Your task to perform on an android device: uninstall "WhatsApp Messenger" Image 0: 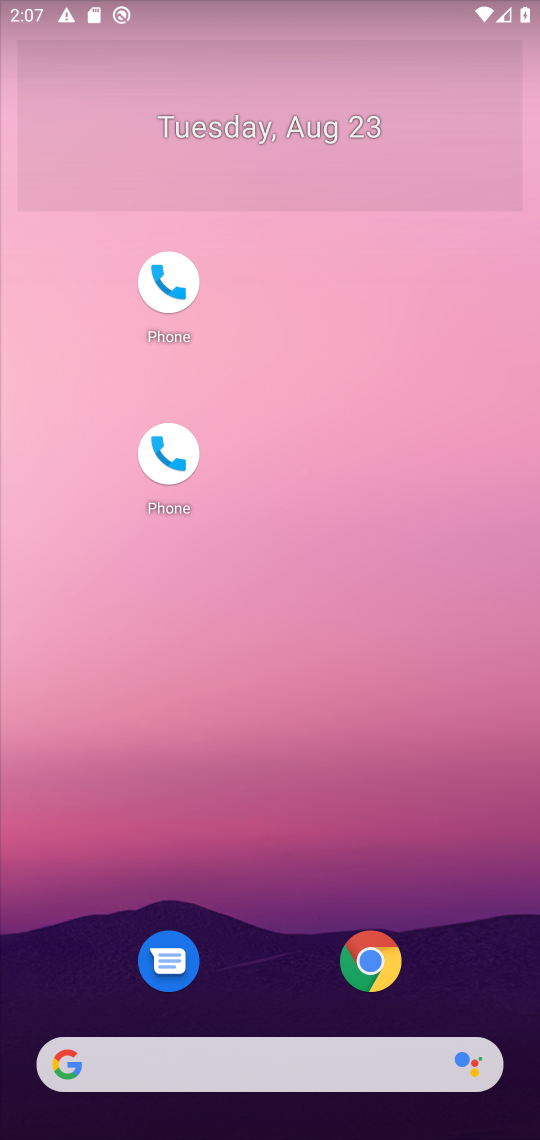
Step 0: drag from (275, 436) to (307, 56)
Your task to perform on an android device: uninstall "WhatsApp Messenger" Image 1: 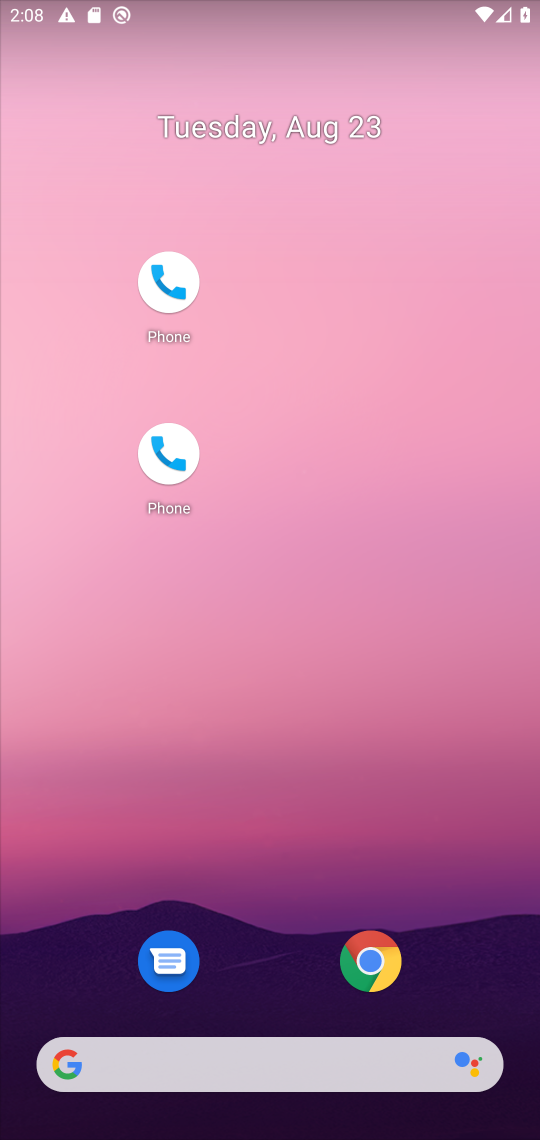
Step 1: drag from (261, 1005) to (302, 31)
Your task to perform on an android device: uninstall "WhatsApp Messenger" Image 2: 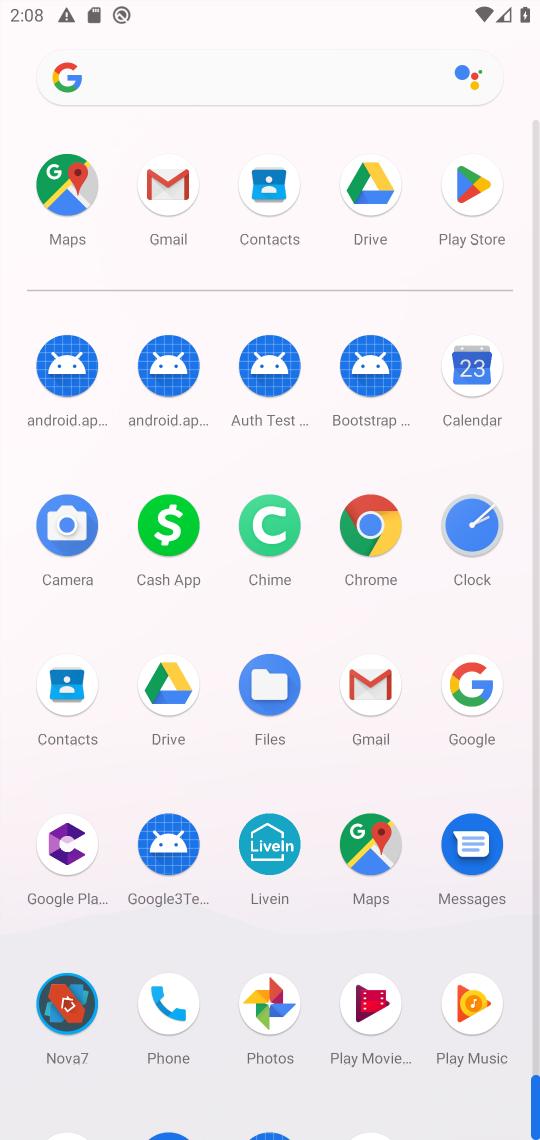
Step 2: click (484, 204)
Your task to perform on an android device: uninstall "WhatsApp Messenger" Image 3: 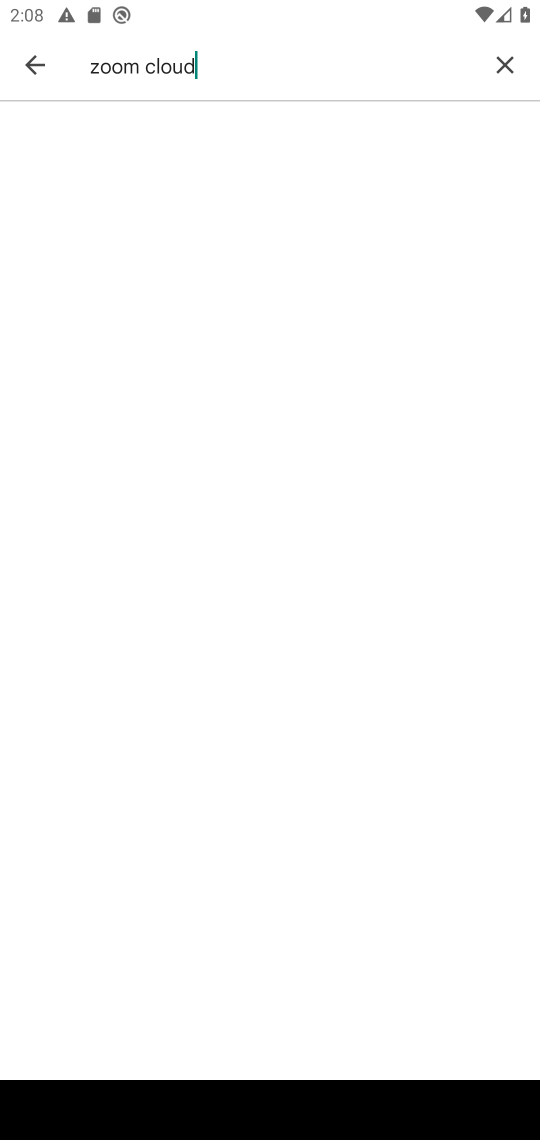
Step 3: click (494, 71)
Your task to perform on an android device: uninstall "WhatsApp Messenger" Image 4: 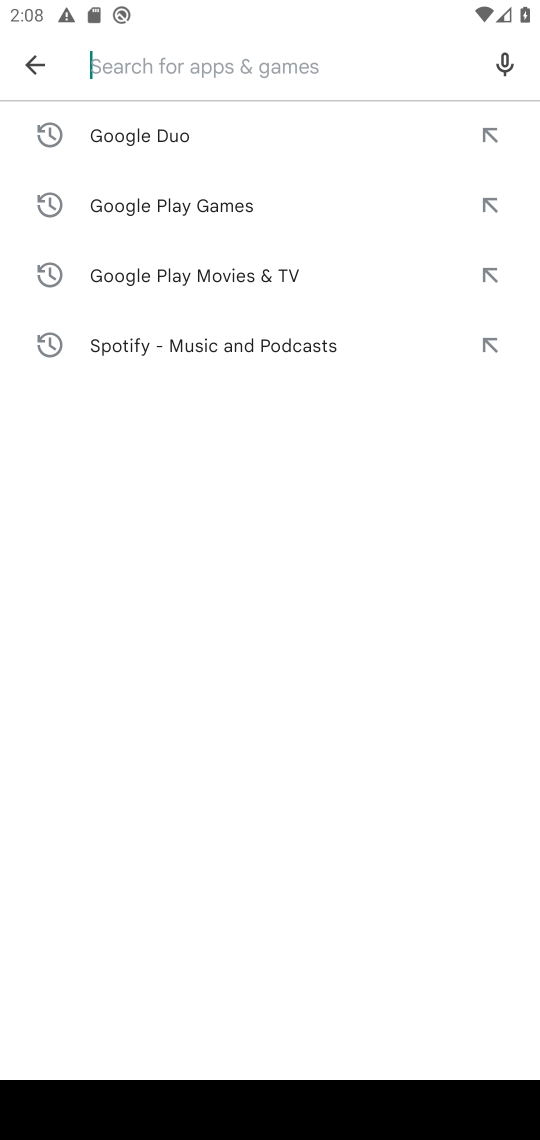
Step 4: type "whatsaap"
Your task to perform on an android device: uninstall "WhatsApp Messenger" Image 5: 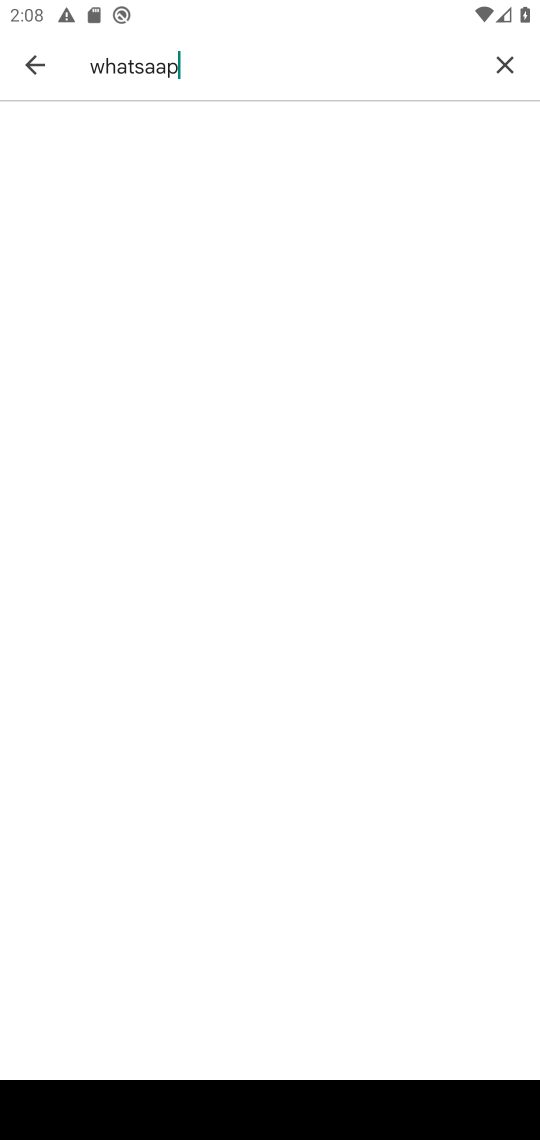
Step 5: task complete